Your task to perform on an android device: manage bookmarks in the chrome app Image 0: 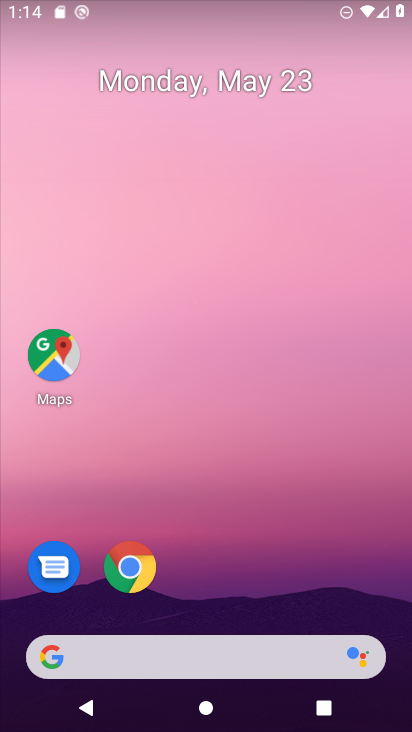
Step 0: press home button
Your task to perform on an android device: manage bookmarks in the chrome app Image 1: 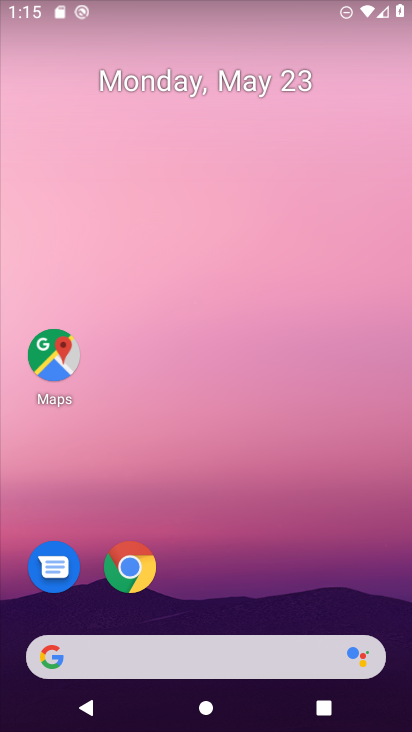
Step 1: click (127, 580)
Your task to perform on an android device: manage bookmarks in the chrome app Image 2: 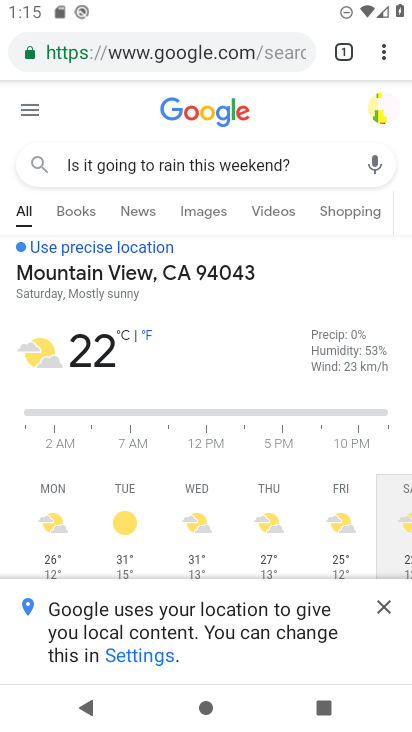
Step 2: task complete